Your task to perform on an android device: turn off location Image 0: 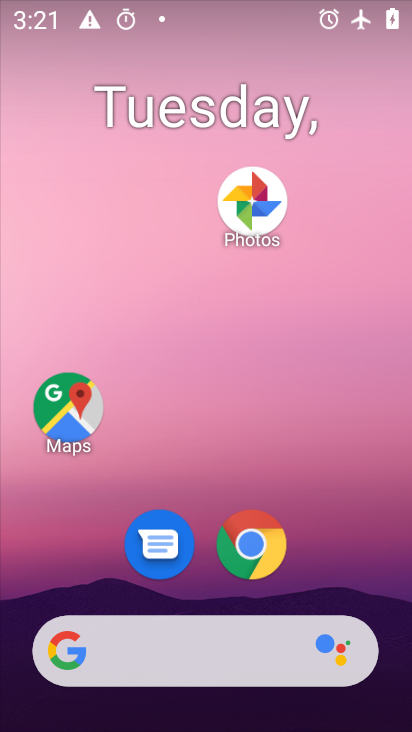
Step 0: click (332, 65)
Your task to perform on an android device: turn off location Image 1: 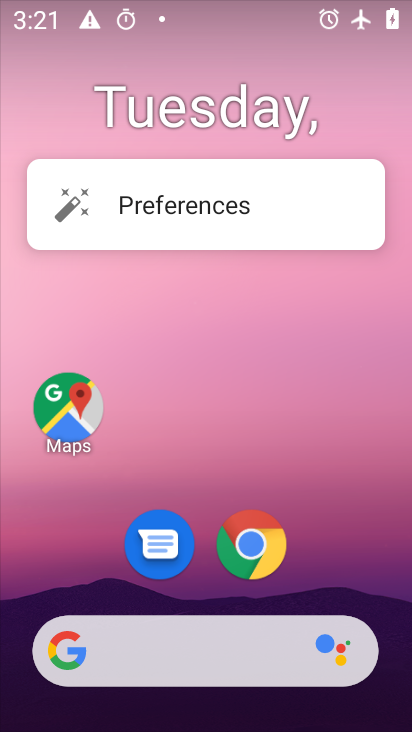
Step 1: click (343, 421)
Your task to perform on an android device: turn off location Image 2: 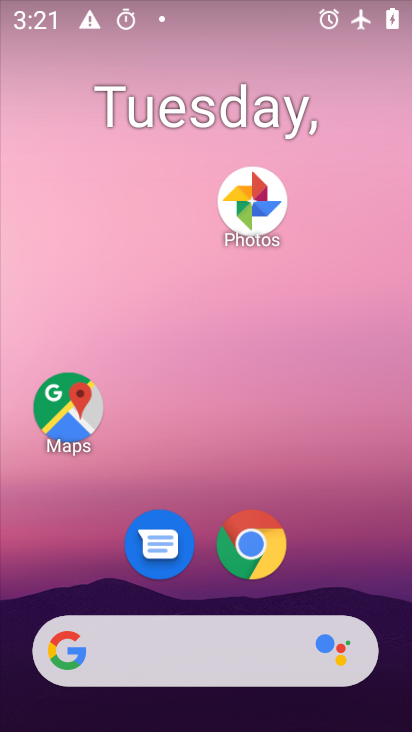
Step 2: drag from (315, 405) to (284, 35)
Your task to perform on an android device: turn off location Image 3: 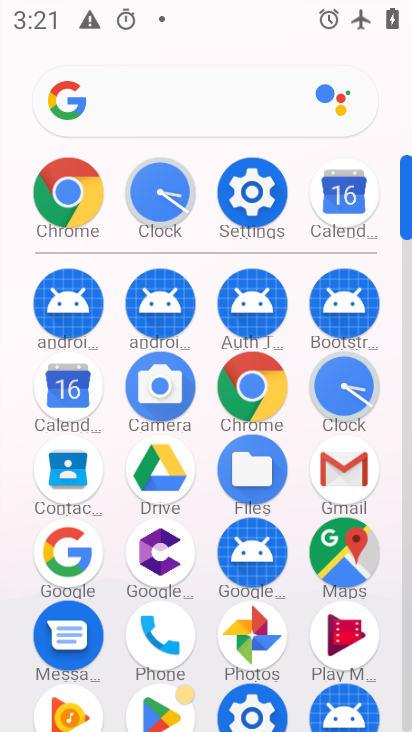
Step 3: click (253, 713)
Your task to perform on an android device: turn off location Image 4: 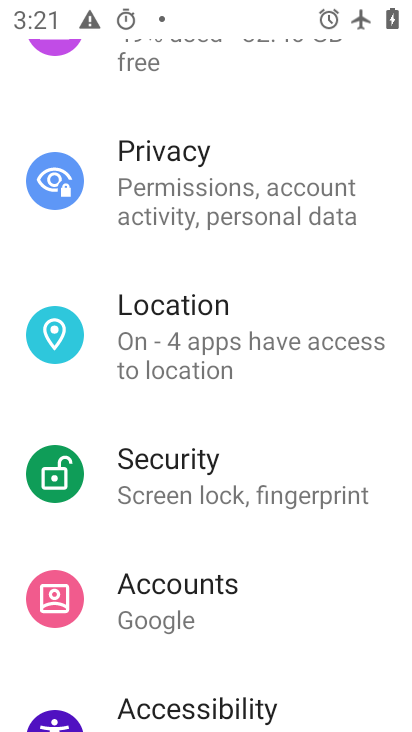
Step 4: drag from (280, 650) to (260, 126)
Your task to perform on an android device: turn off location Image 5: 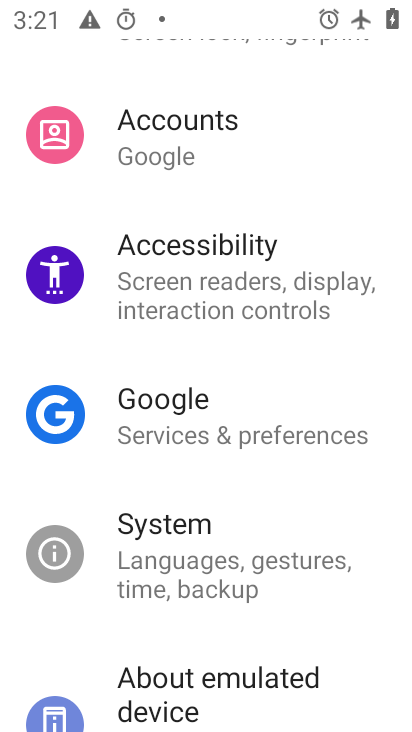
Step 5: drag from (224, 560) to (273, 94)
Your task to perform on an android device: turn off location Image 6: 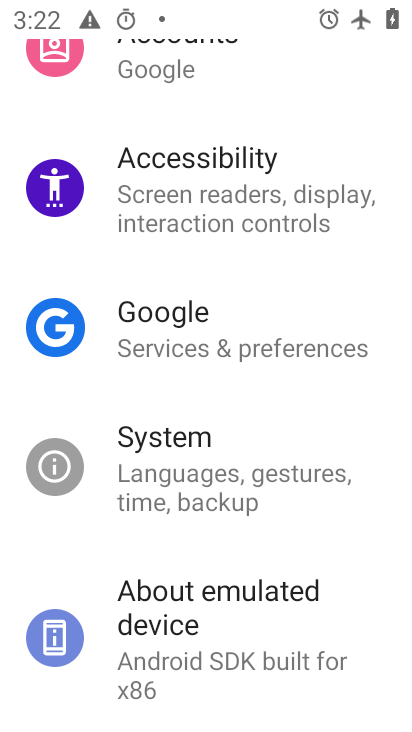
Step 6: drag from (236, 236) to (230, 597)
Your task to perform on an android device: turn off location Image 7: 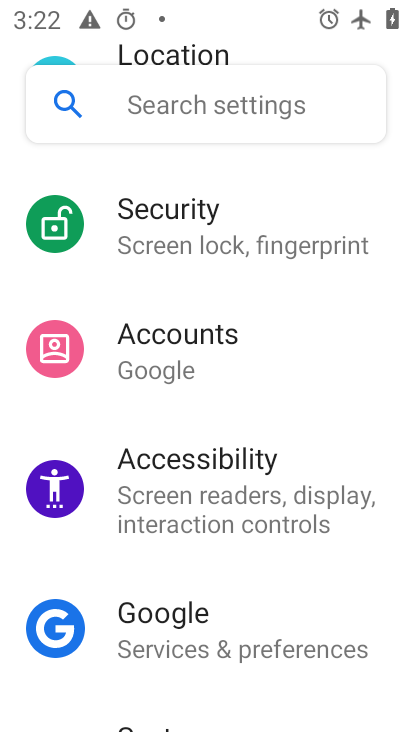
Step 7: drag from (281, 318) to (262, 632)
Your task to perform on an android device: turn off location Image 8: 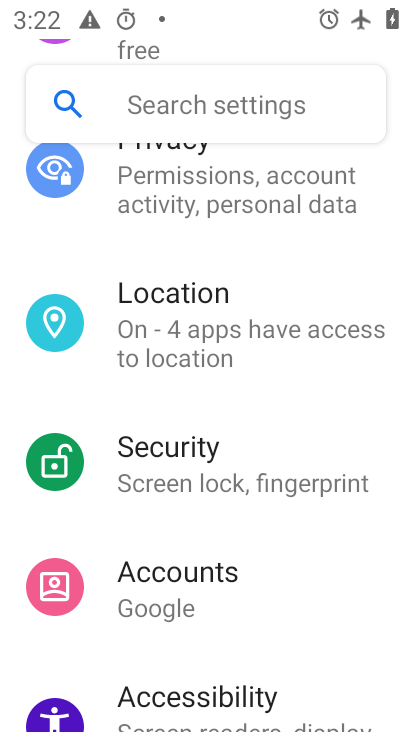
Step 8: click (199, 320)
Your task to perform on an android device: turn off location Image 9: 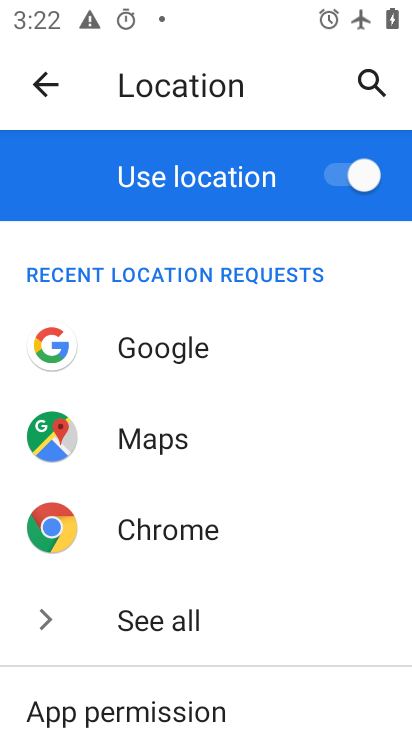
Step 9: click (338, 168)
Your task to perform on an android device: turn off location Image 10: 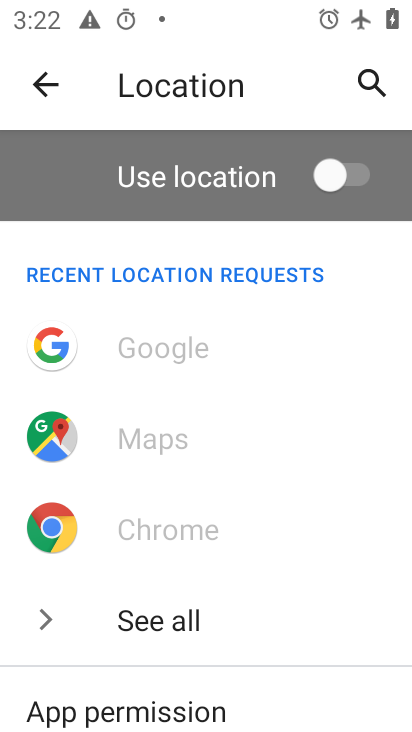
Step 10: task complete